Your task to perform on an android device: add a contact Image 0: 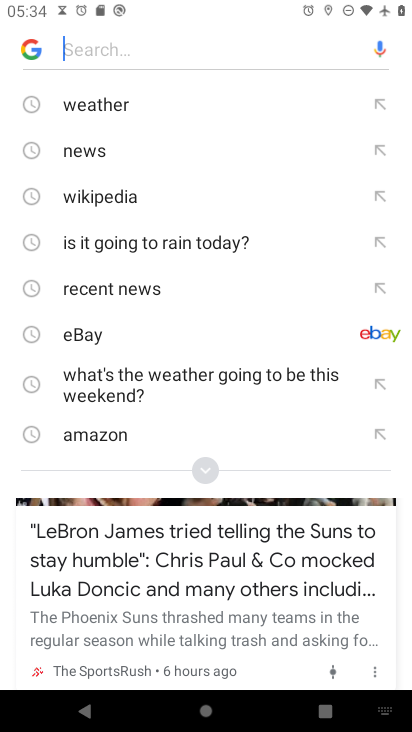
Step 0: press back button
Your task to perform on an android device: add a contact Image 1: 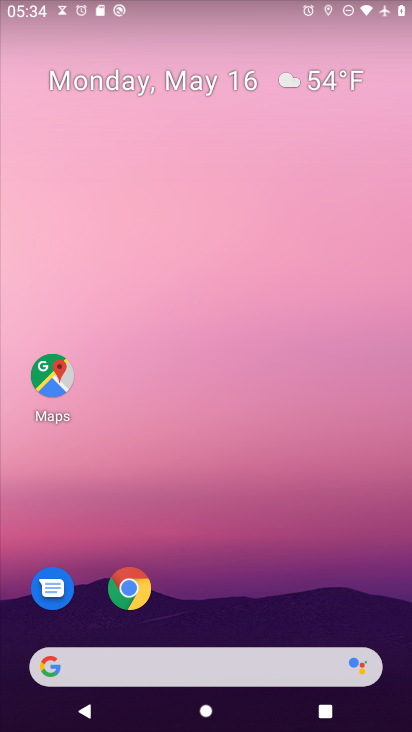
Step 1: drag from (236, 554) to (231, 57)
Your task to perform on an android device: add a contact Image 2: 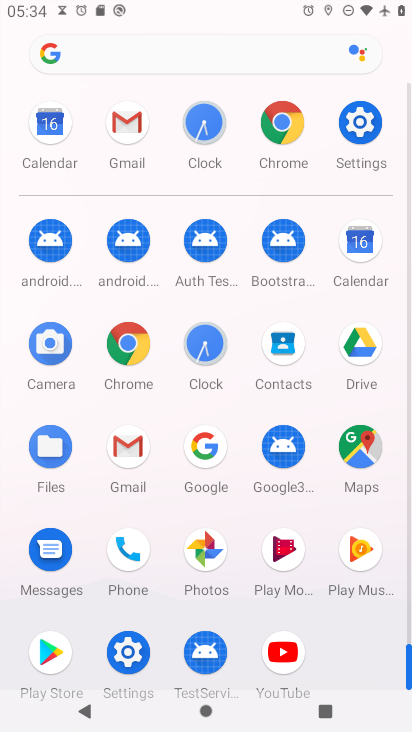
Step 2: click (286, 344)
Your task to perform on an android device: add a contact Image 3: 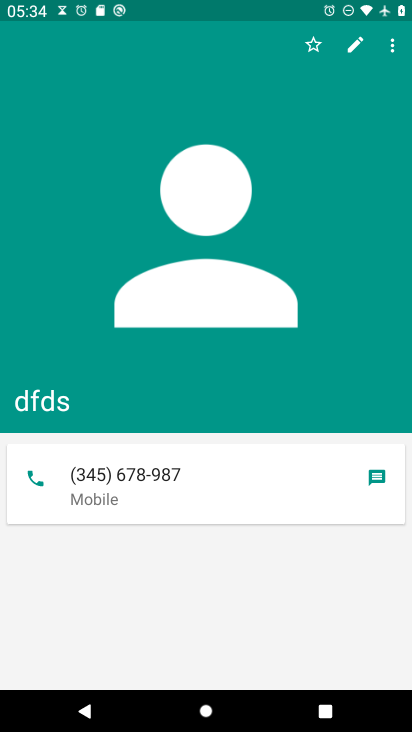
Step 3: press back button
Your task to perform on an android device: add a contact Image 4: 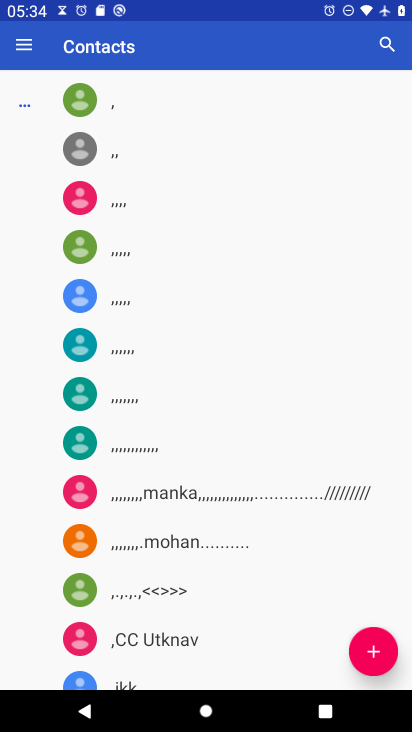
Step 4: click (360, 662)
Your task to perform on an android device: add a contact Image 5: 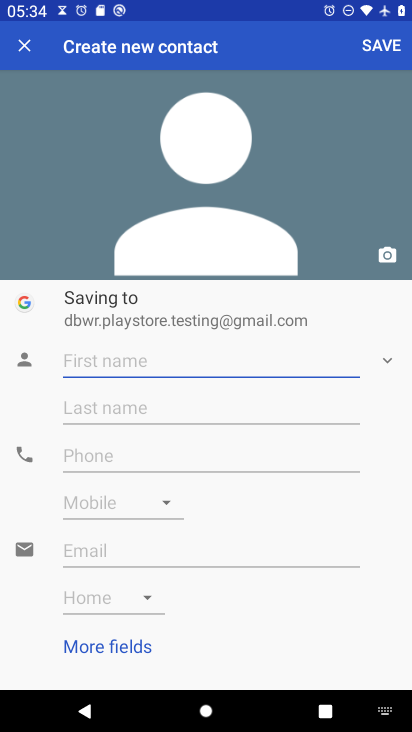
Step 5: type "DFG"
Your task to perform on an android device: add a contact Image 6: 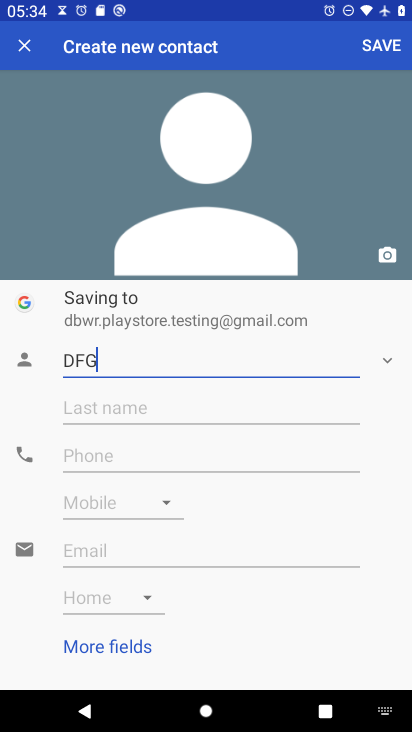
Step 6: type ""
Your task to perform on an android device: add a contact Image 7: 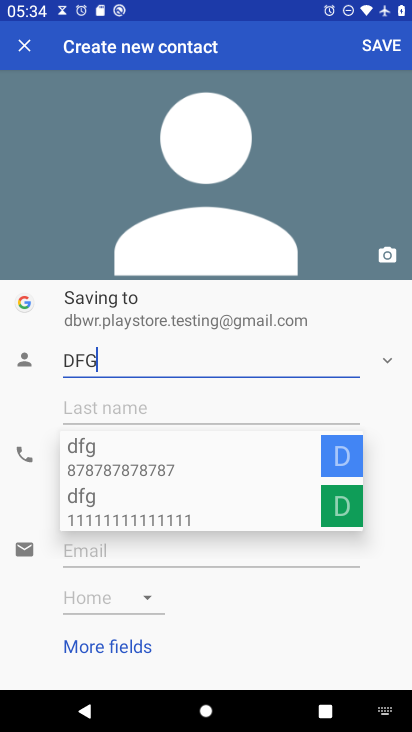
Step 7: click (120, 448)
Your task to perform on an android device: add a contact Image 8: 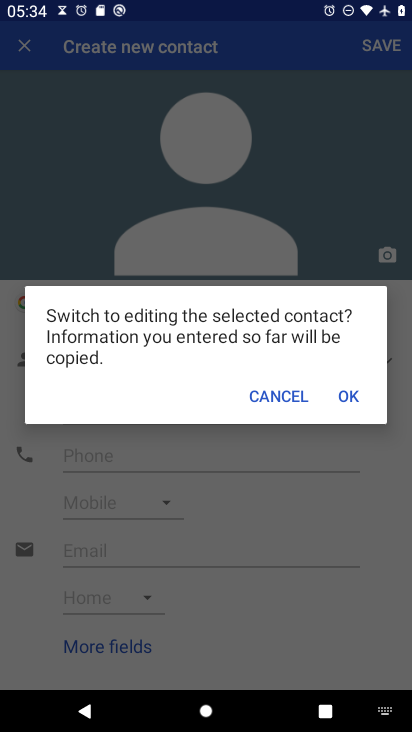
Step 8: click (350, 397)
Your task to perform on an android device: add a contact Image 9: 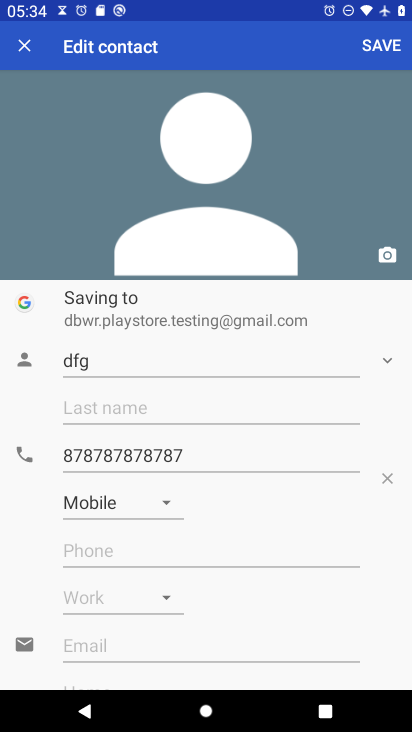
Step 9: click (389, 45)
Your task to perform on an android device: add a contact Image 10: 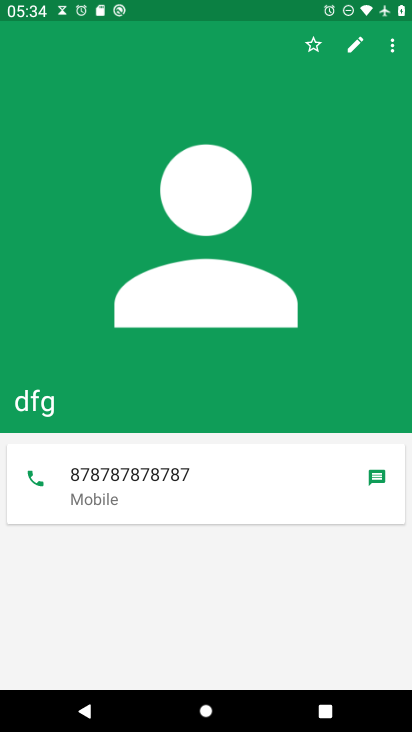
Step 10: task complete